Your task to perform on an android device: Open calendar and show me the fourth week of next month Image 0: 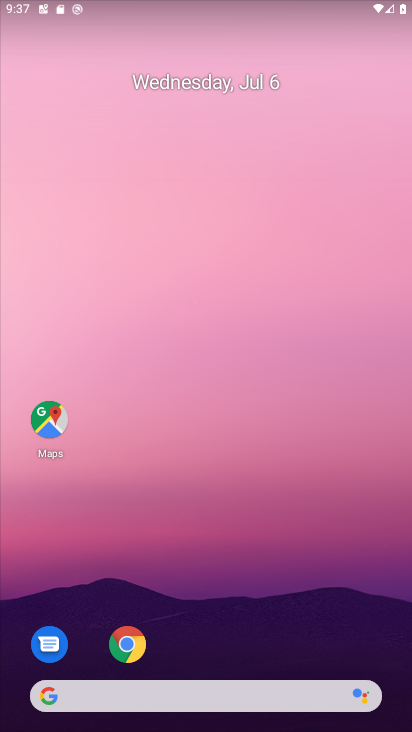
Step 0: drag from (244, 593) to (377, 366)
Your task to perform on an android device: Open calendar and show me the fourth week of next month Image 1: 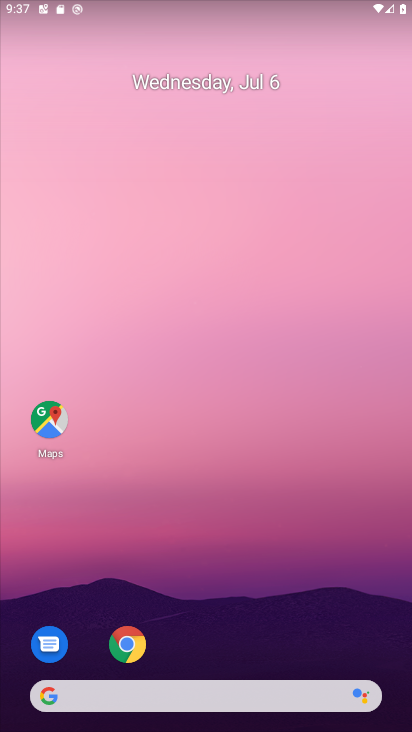
Step 1: drag from (268, 614) to (323, 0)
Your task to perform on an android device: Open calendar and show me the fourth week of next month Image 2: 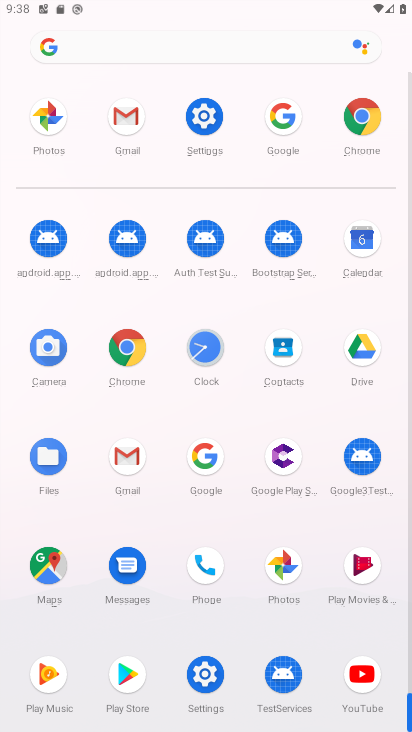
Step 2: click (366, 242)
Your task to perform on an android device: Open calendar and show me the fourth week of next month Image 3: 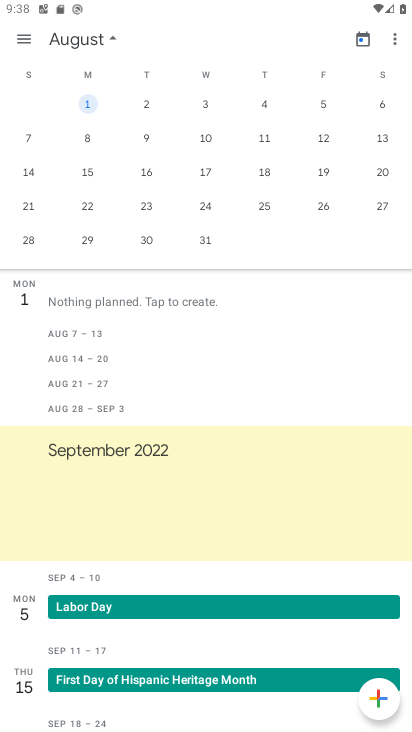
Step 3: click (30, 209)
Your task to perform on an android device: Open calendar and show me the fourth week of next month Image 4: 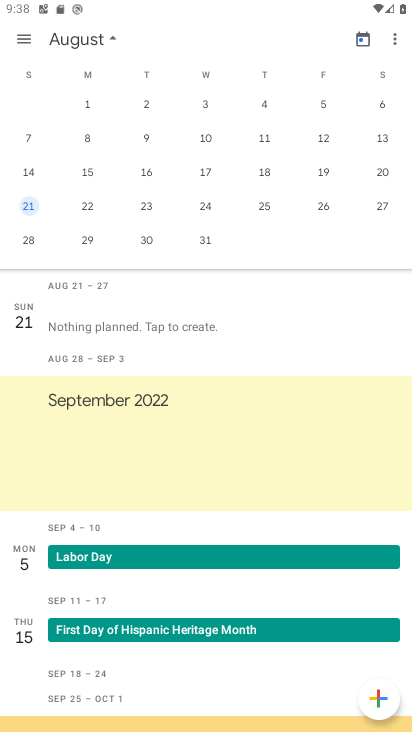
Step 4: task complete